Your task to perform on an android device: Open notification settings Image 0: 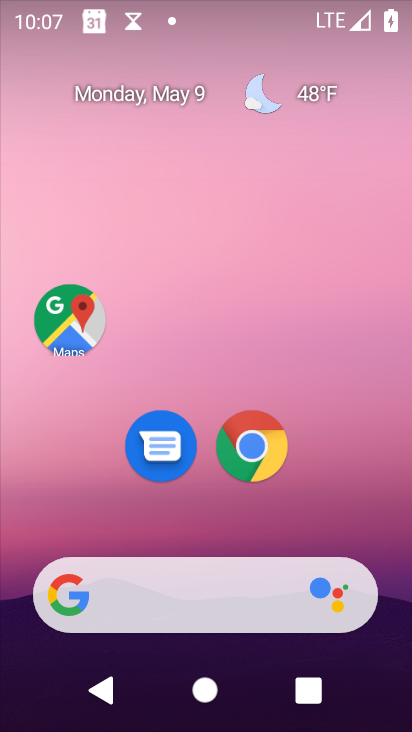
Step 0: drag from (214, 525) to (227, 39)
Your task to perform on an android device: Open notification settings Image 1: 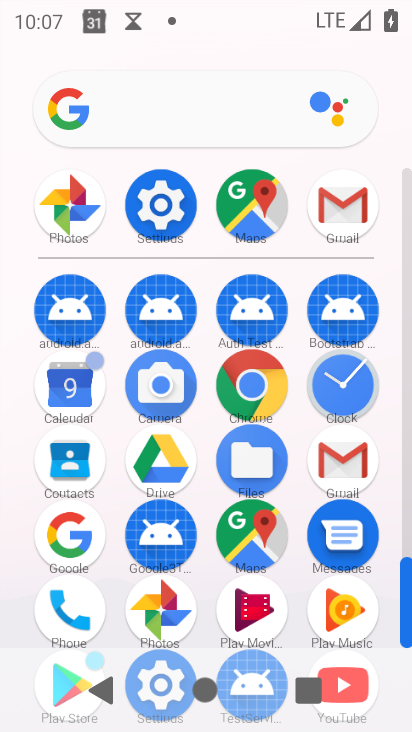
Step 1: click (171, 220)
Your task to perform on an android device: Open notification settings Image 2: 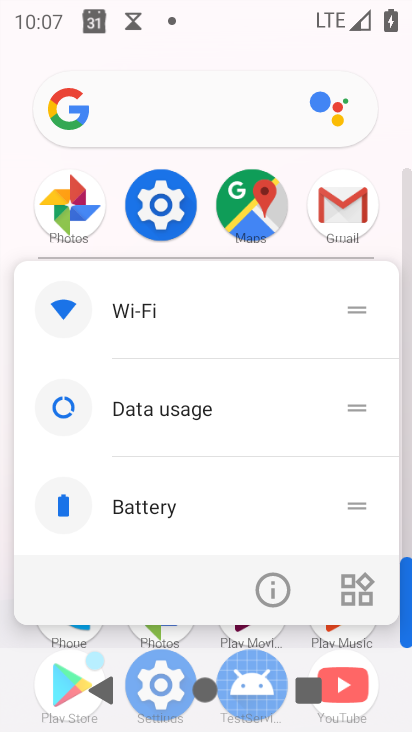
Step 2: click (172, 202)
Your task to perform on an android device: Open notification settings Image 3: 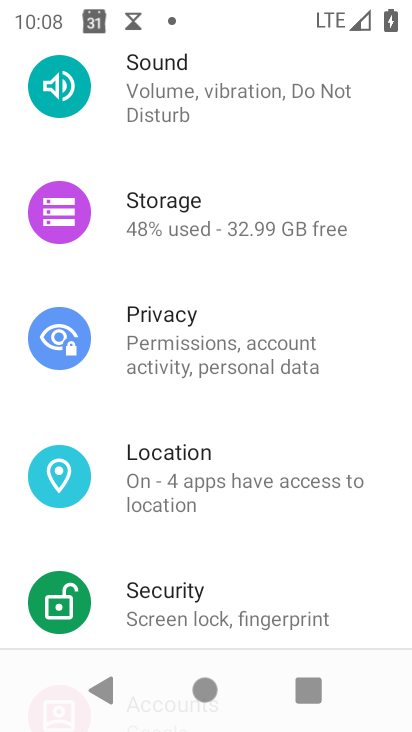
Step 3: drag from (264, 292) to (169, 635)
Your task to perform on an android device: Open notification settings Image 4: 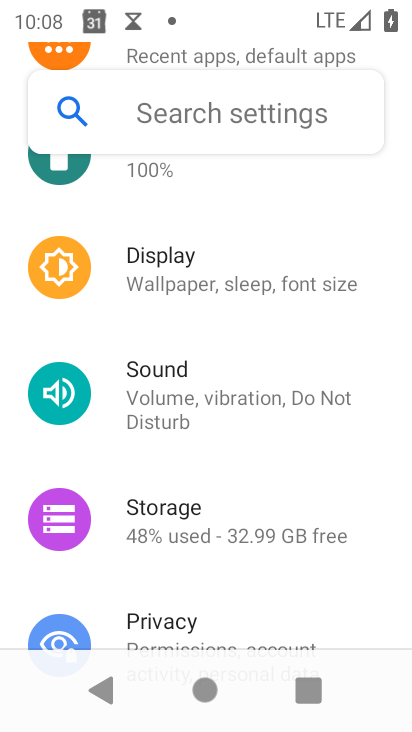
Step 4: drag from (254, 220) to (168, 620)
Your task to perform on an android device: Open notification settings Image 5: 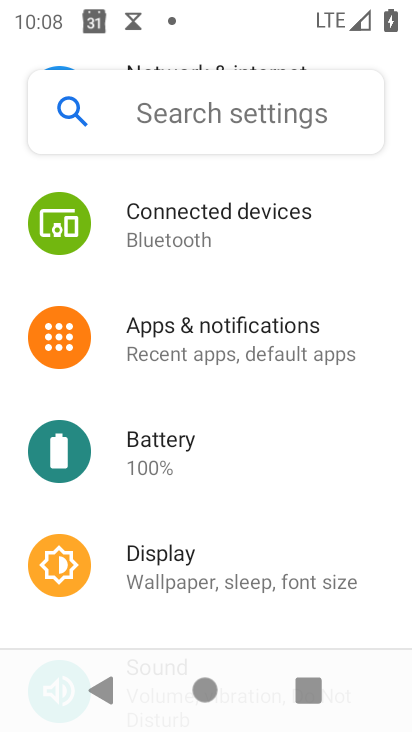
Step 5: click (178, 337)
Your task to perform on an android device: Open notification settings Image 6: 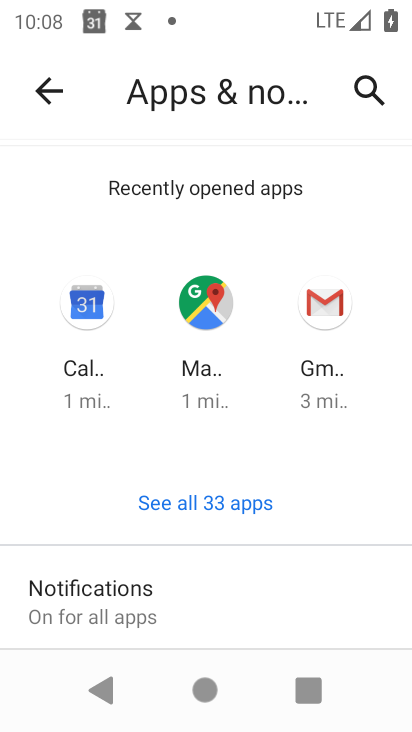
Step 6: task complete